Your task to perform on an android device: turn off location history Image 0: 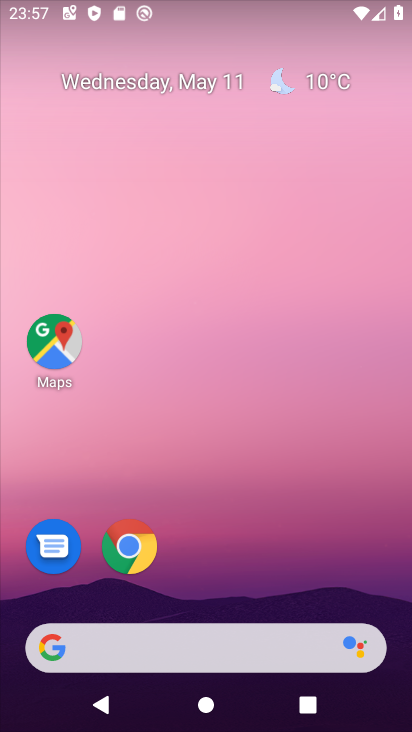
Step 0: drag from (189, 597) to (208, 139)
Your task to perform on an android device: turn off location history Image 1: 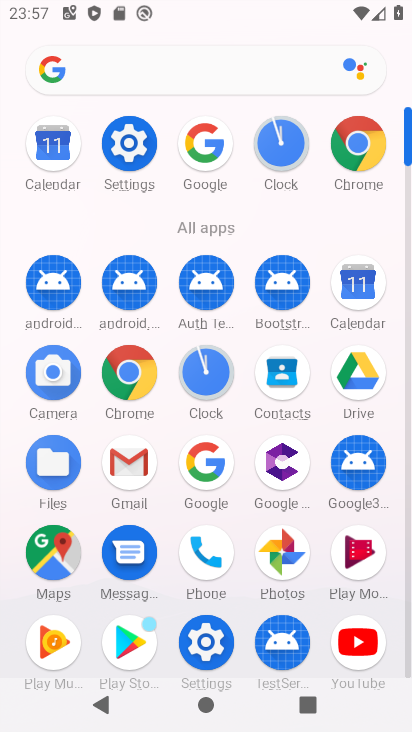
Step 1: click (130, 147)
Your task to perform on an android device: turn off location history Image 2: 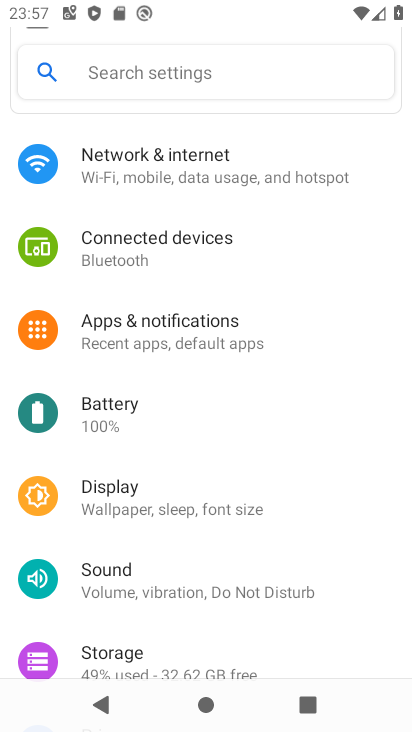
Step 2: drag from (168, 545) to (230, 226)
Your task to perform on an android device: turn off location history Image 3: 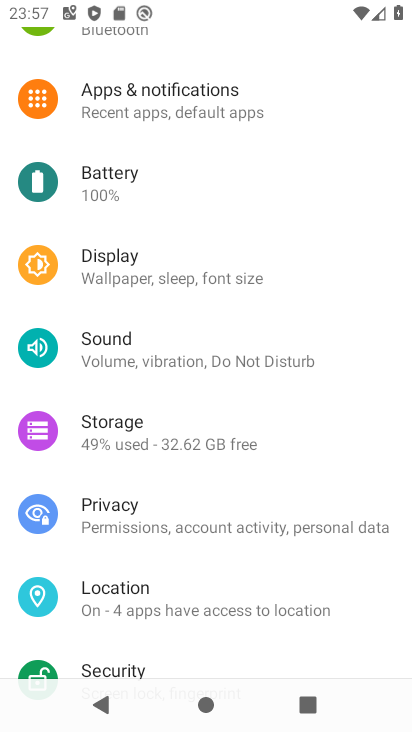
Step 3: click (182, 586)
Your task to perform on an android device: turn off location history Image 4: 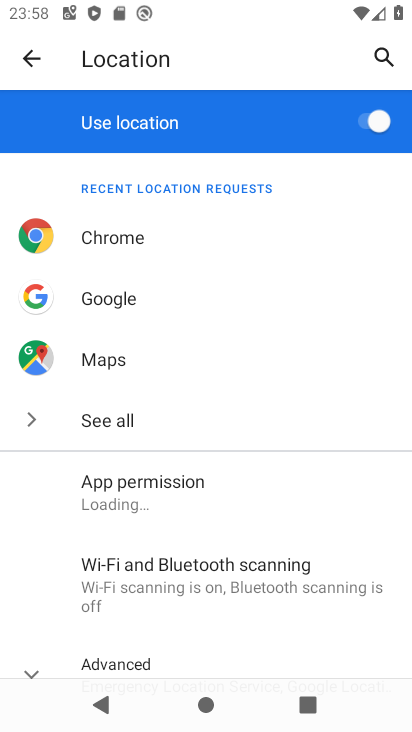
Step 4: drag from (34, 626) to (99, 227)
Your task to perform on an android device: turn off location history Image 5: 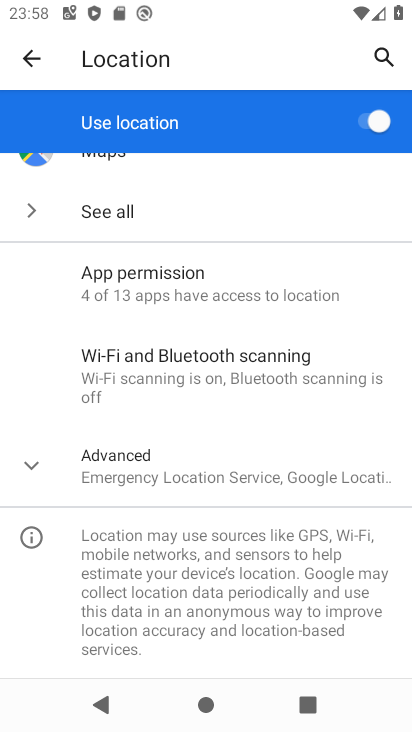
Step 5: click (31, 469)
Your task to perform on an android device: turn off location history Image 6: 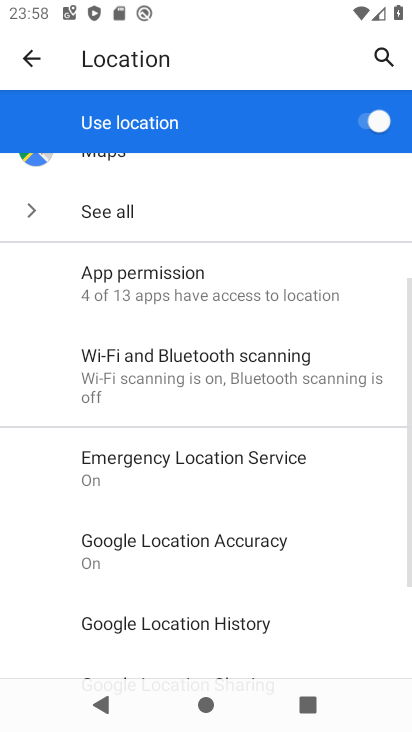
Step 6: drag from (171, 567) to (209, 268)
Your task to perform on an android device: turn off location history Image 7: 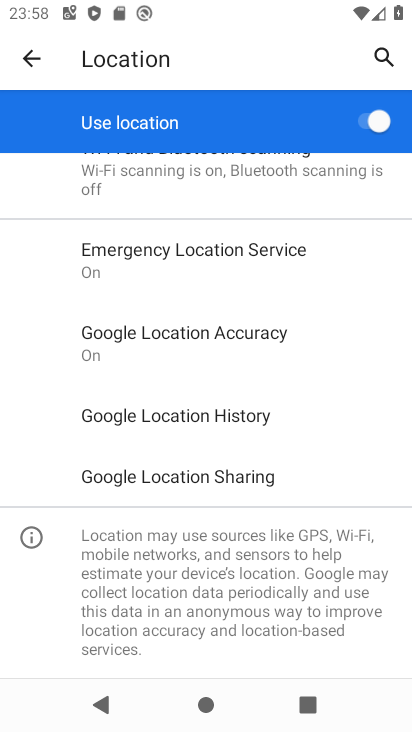
Step 7: click (238, 418)
Your task to perform on an android device: turn off location history Image 8: 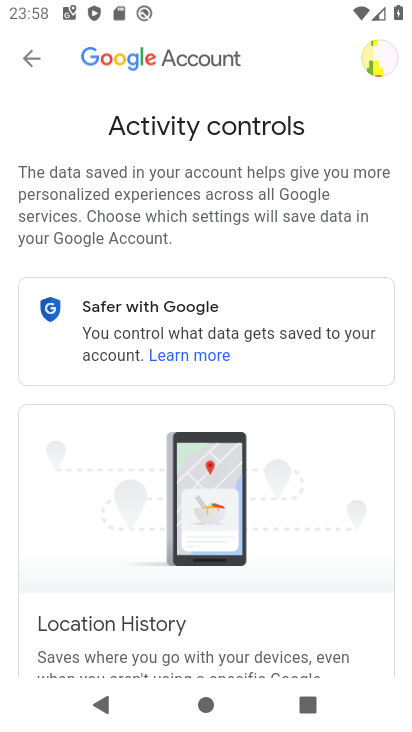
Step 8: drag from (323, 520) to (336, 206)
Your task to perform on an android device: turn off location history Image 9: 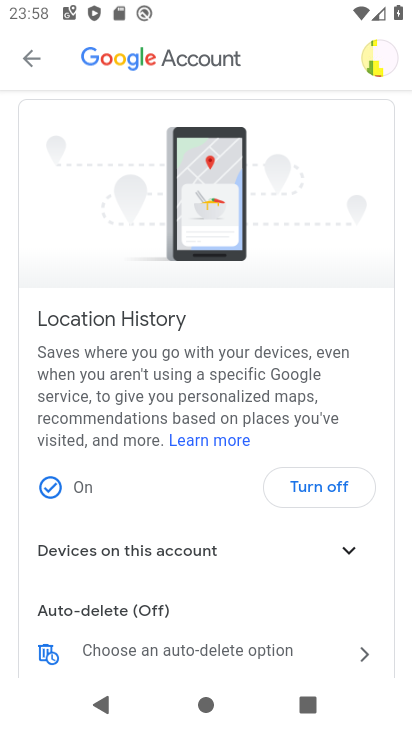
Step 9: click (325, 485)
Your task to perform on an android device: turn off location history Image 10: 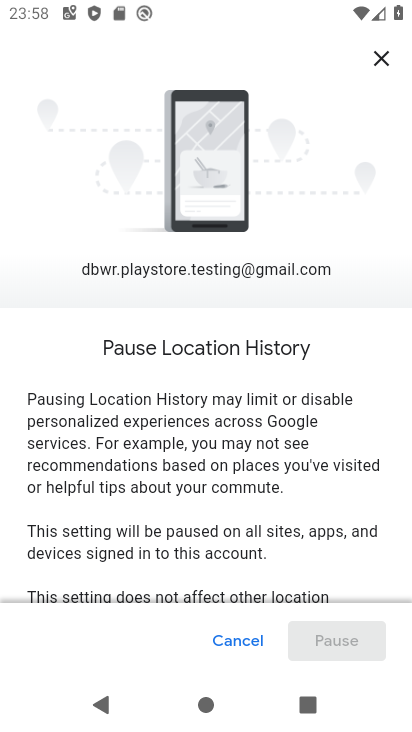
Step 10: task complete